Your task to perform on an android device: Open sound settings Image 0: 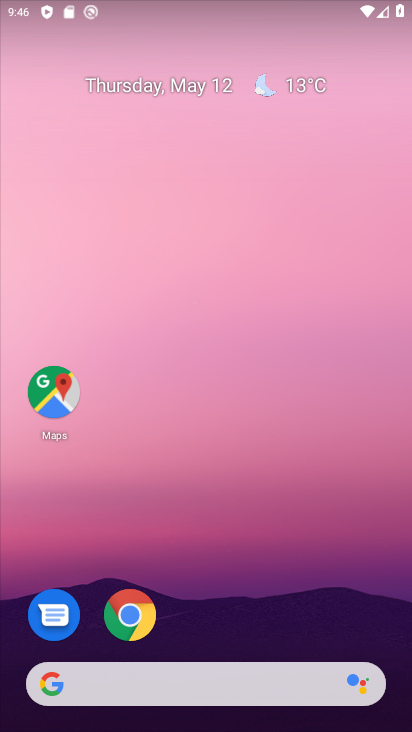
Step 0: drag from (329, 604) to (327, 48)
Your task to perform on an android device: Open sound settings Image 1: 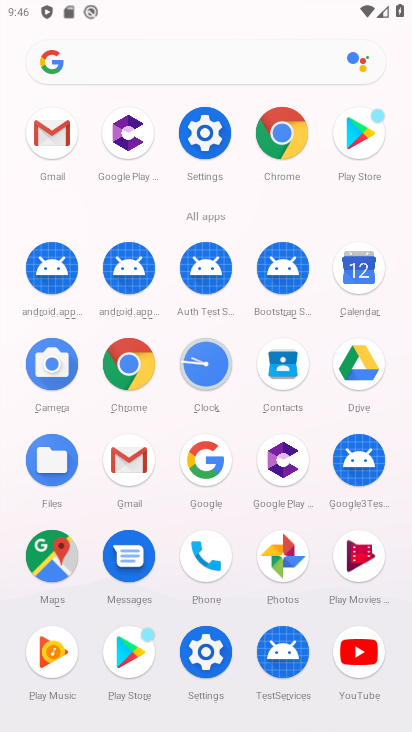
Step 1: click (195, 138)
Your task to perform on an android device: Open sound settings Image 2: 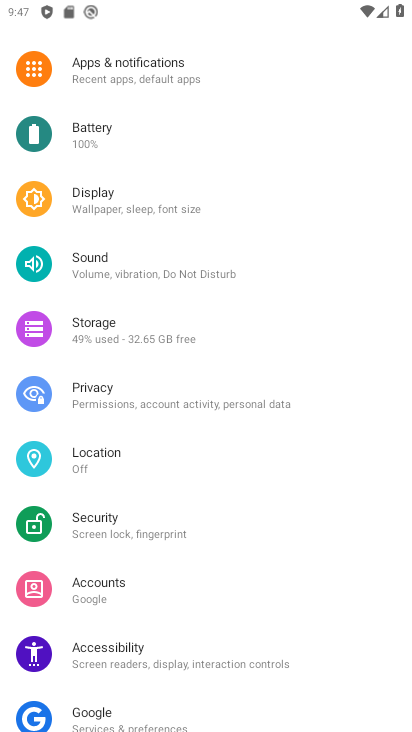
Step 2: click (112, 259)
Your task to perform on an android device: Open sound settings Image 3: 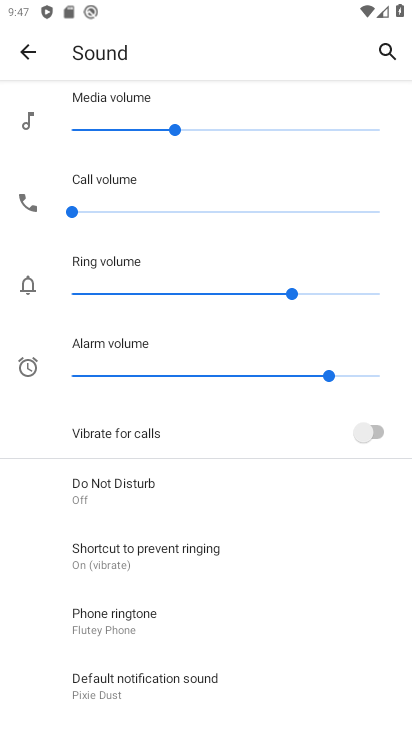
Step 3: task complete